Your task to perform on an android device: Search for seafood restaurants on Google Maps Image 0: 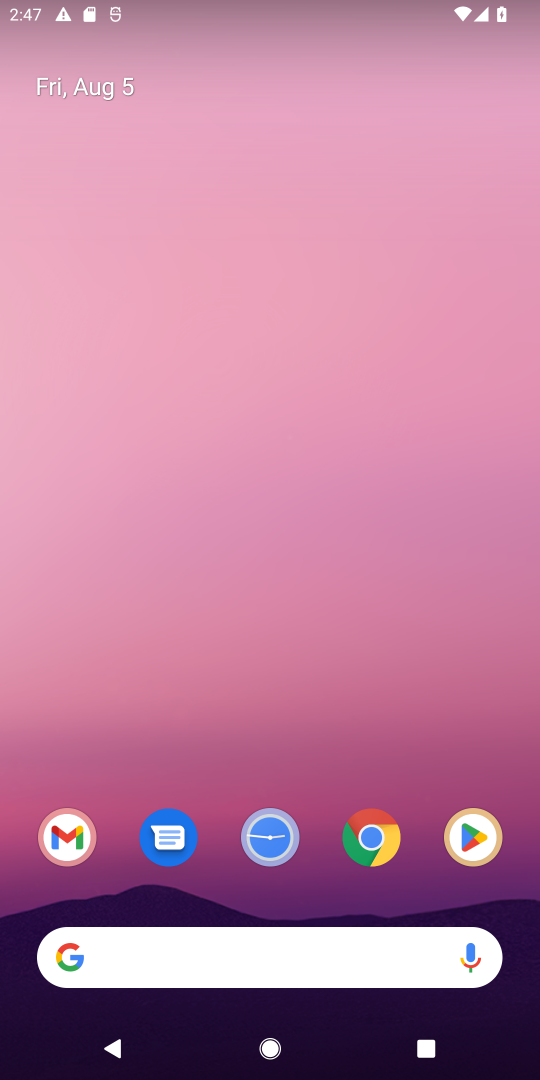
Step 0: drag from (374, 704) to (307, 239)
Your task to perform on an android device: Search for seafood restaurants on Google Maps Image 1: 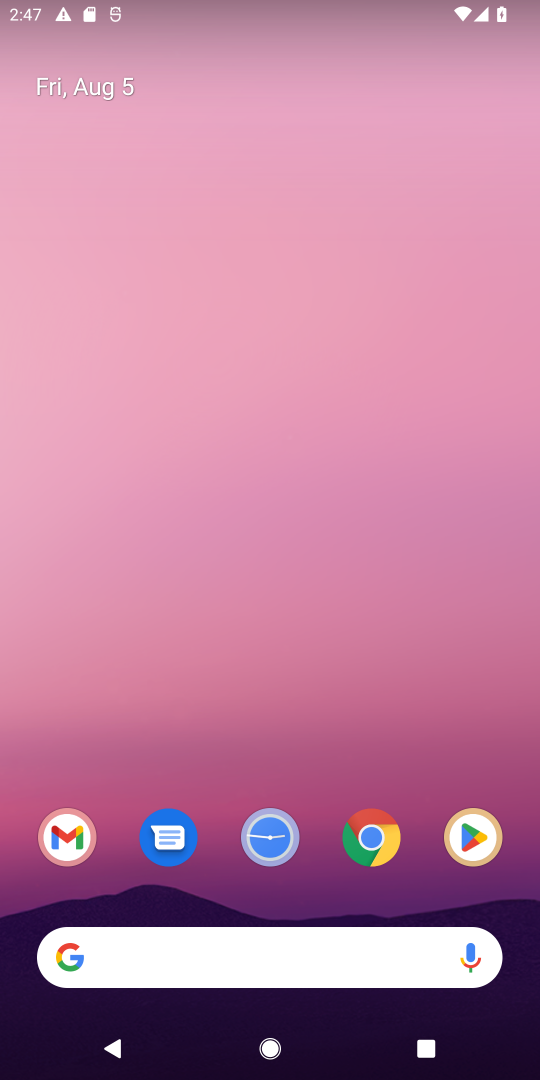
Step 1: drag from (321, 872) to (193, 162)
Your task to perform on an android device: Search for seafood restaurants on Google Maps Image 2: 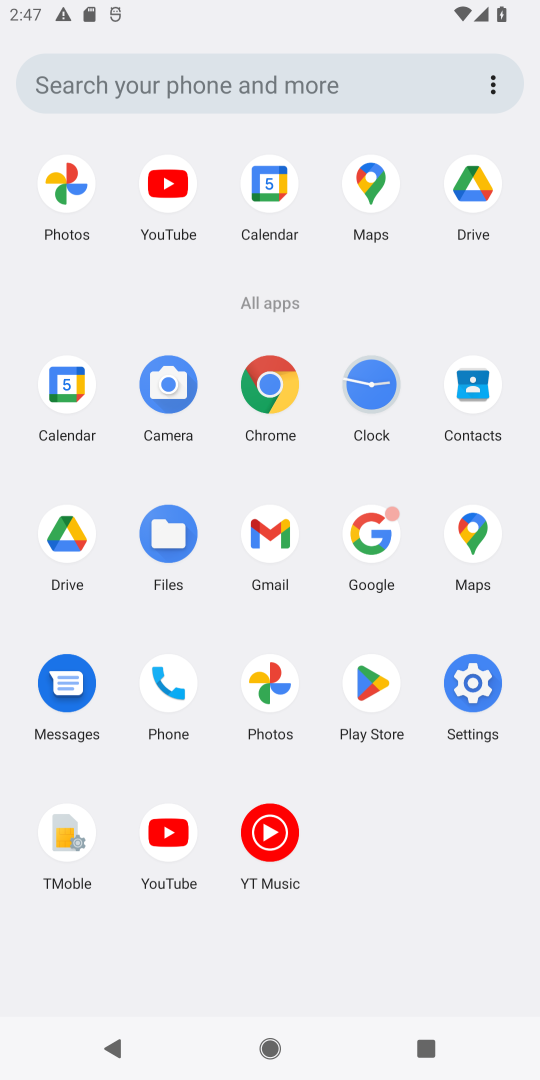
Step 2: drag from (310, 731) to (297, 280)
Your task to perform on an android device: Search for seafood restaurants on Google Maps Image 3: 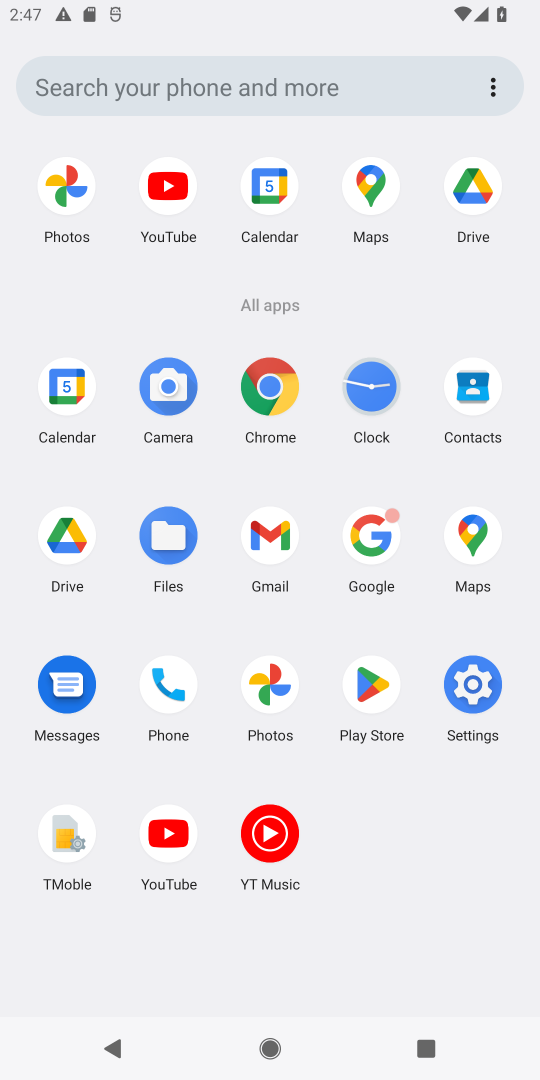
Step 3: click (468, 547)
Your task to perform on an android device: Search for seafood restaurants on Google Maps Image 4: 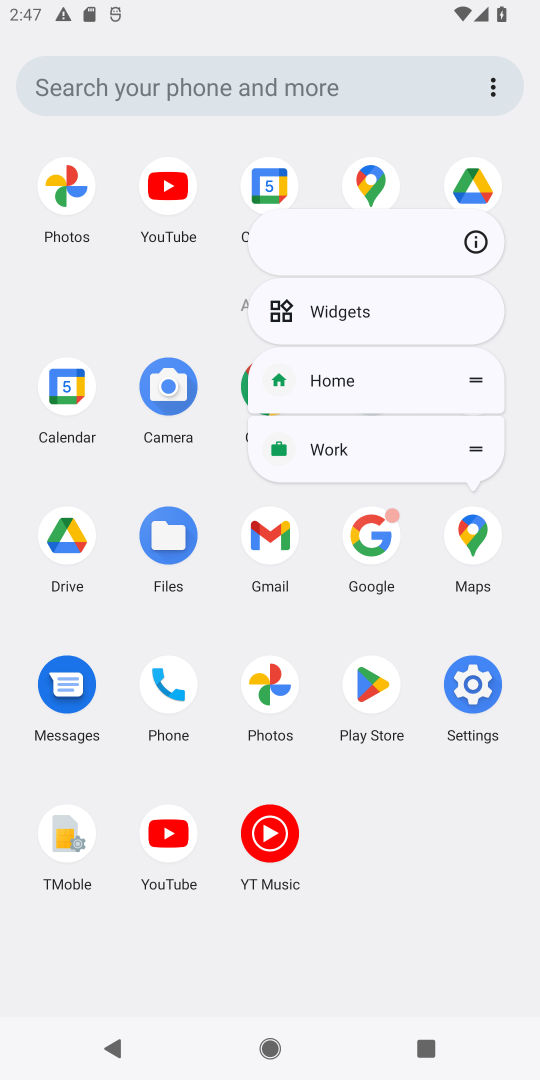
Step 4: click (468, 547)
Your task to perform on an android device: Search for seafood restaurants on Google Maps Image 5: 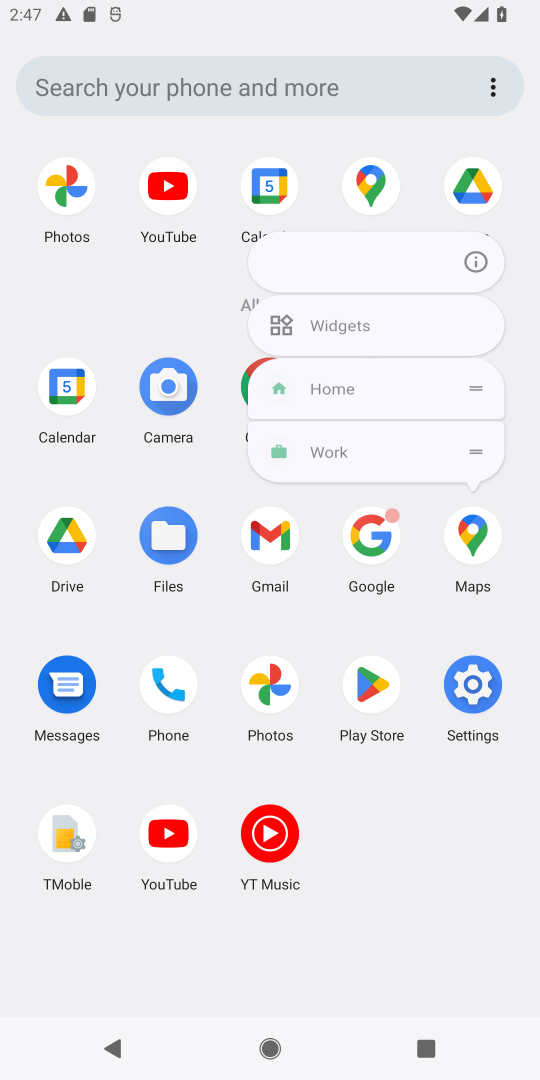
Step 5: click (469, 546)
Your task to perform on an android device: Search for seafood restaurants on Google Maps Image 6: 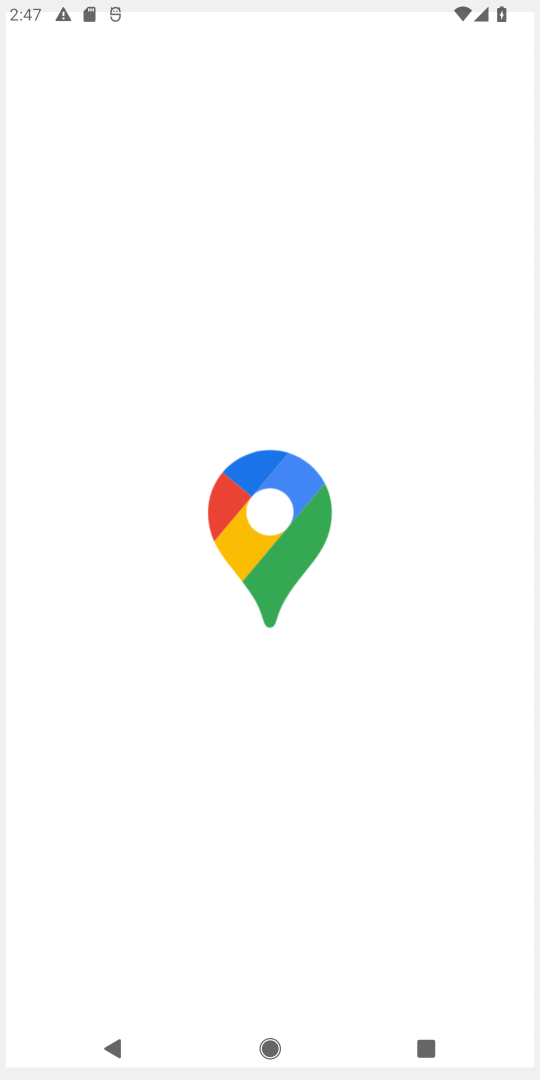
Step 6: click (469, 546)
Your task to perform on an android device: Search for seafood restaurants on Google Maps Image 7: 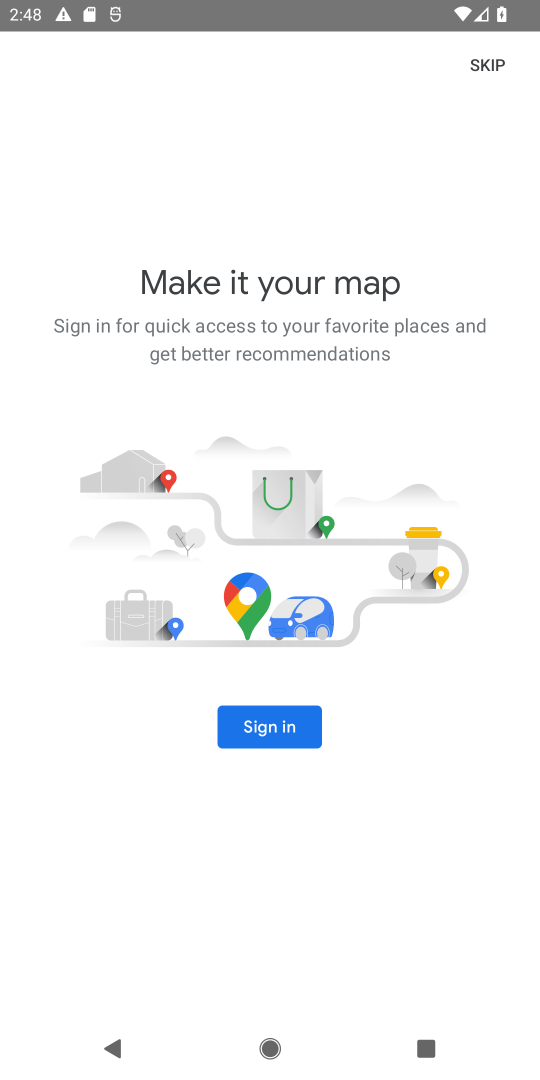
Step 7: press back button
Your task to perform on an android device: Search for seafood restaurants on Google Maps Image 8: 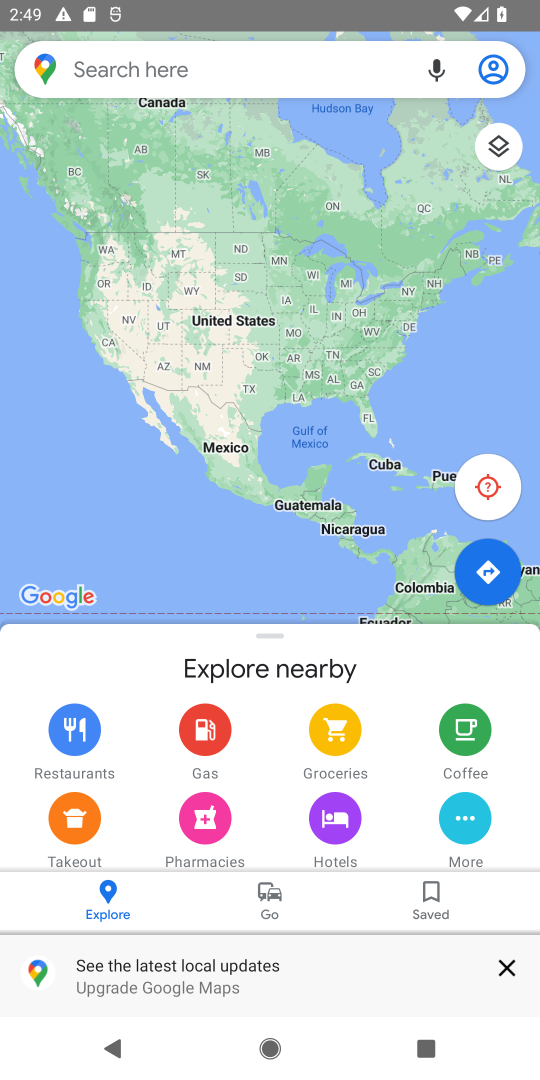
Step 8: click (108, 62)
Your task to perform on an android device: Search for seafood restaurants on Google Maps Image 9: 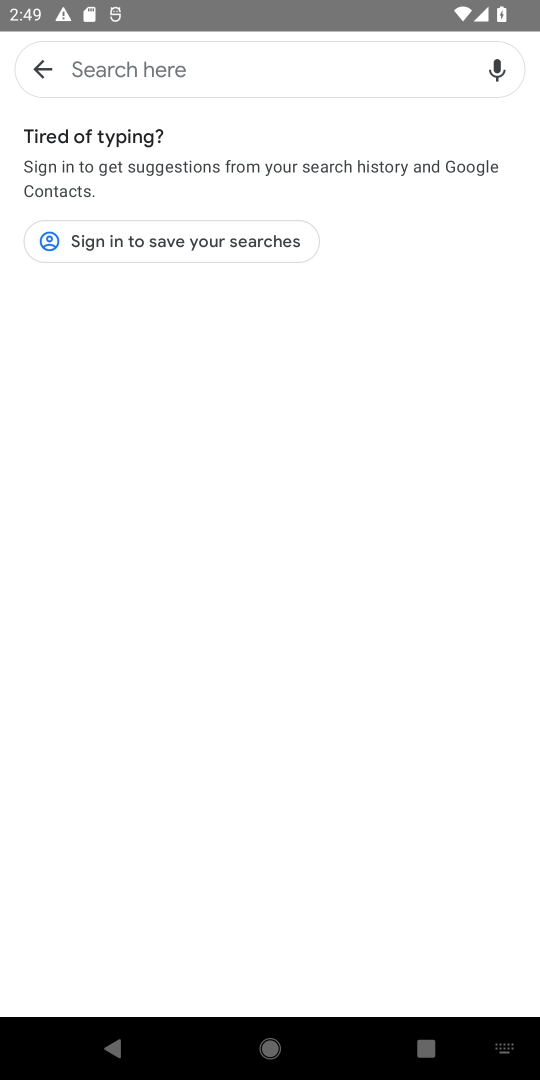
Step 9: type "seafood restaurants"
Your task to perform on an android device: Search for seafood restaurants on Google Maps Image 10: 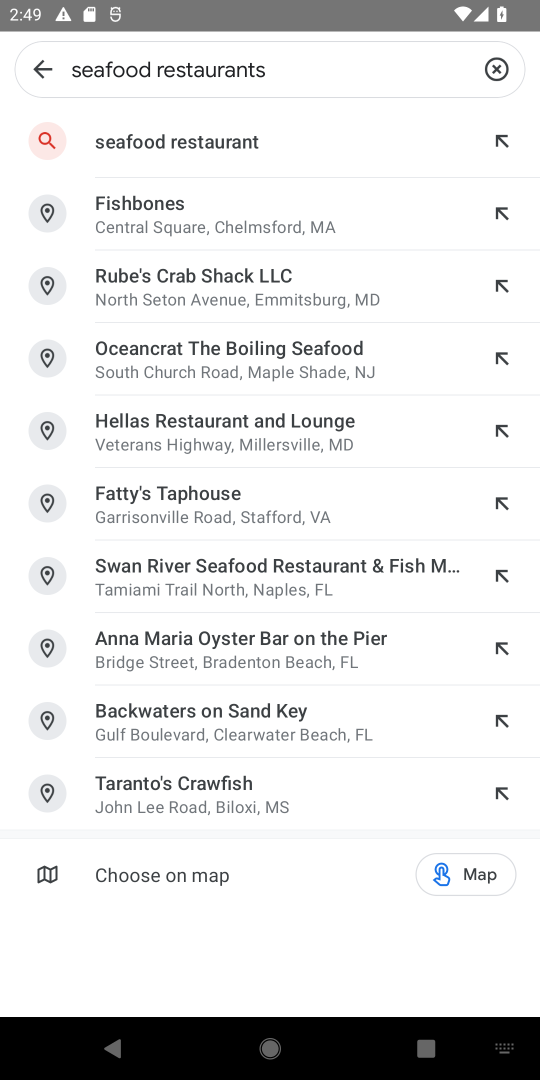
Step 10: click (178, 162)
Your task to perform on an android device: Search for seafood restaurants on Google Maps Image 11: 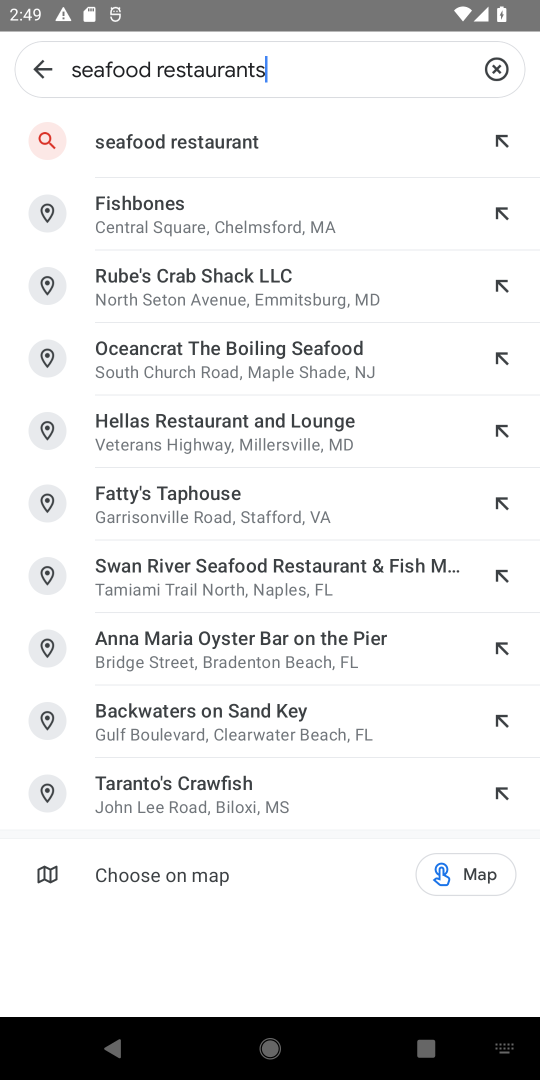
Step 11: click (187, 160)
Your task to perform on an android device: Search for seafood restaurants on Google Maps Image 12: 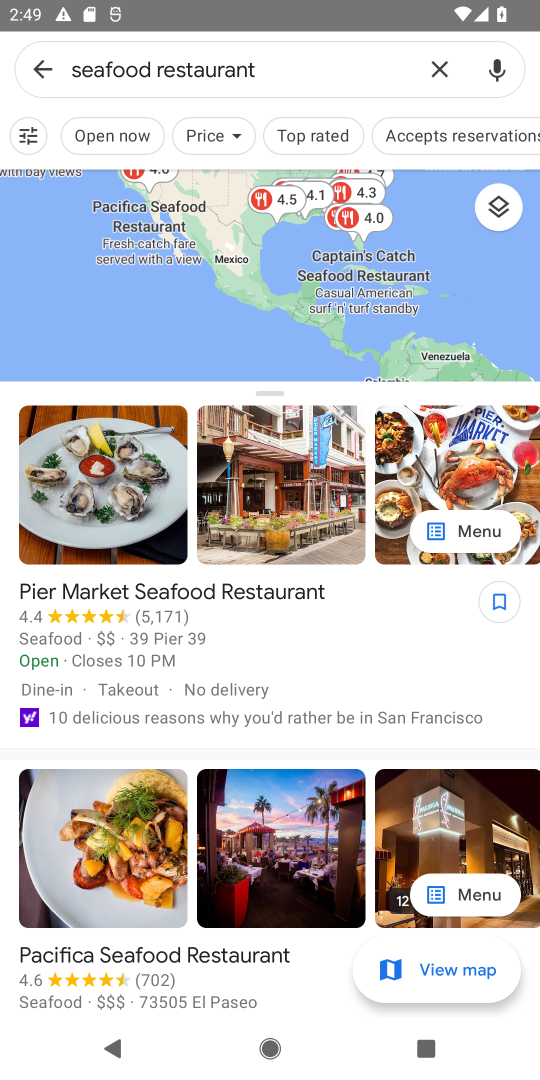
Step 12: task complete